Your task to perform on an android device: Open ESPN.com Image 0: 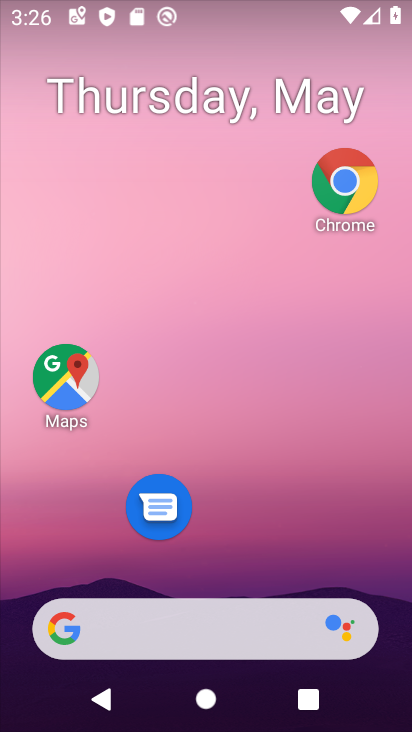
Step 0: click (342, 180)
Your task to perform on an android device: Open ESPN.com Image 1: 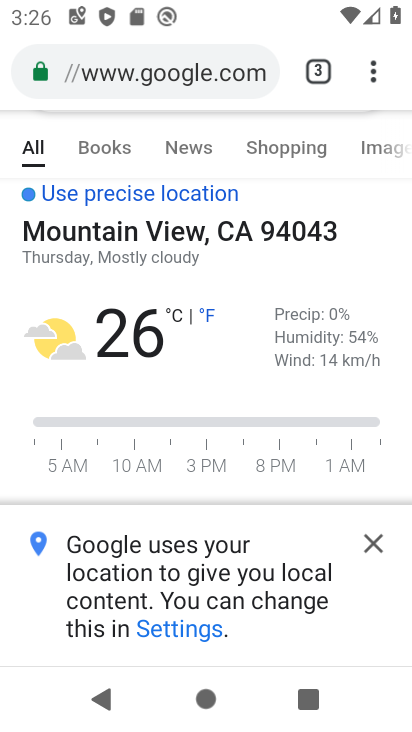
Step 1: click (205, 77)
Your task to perform on an android device: Open ESPN.com Image 2: 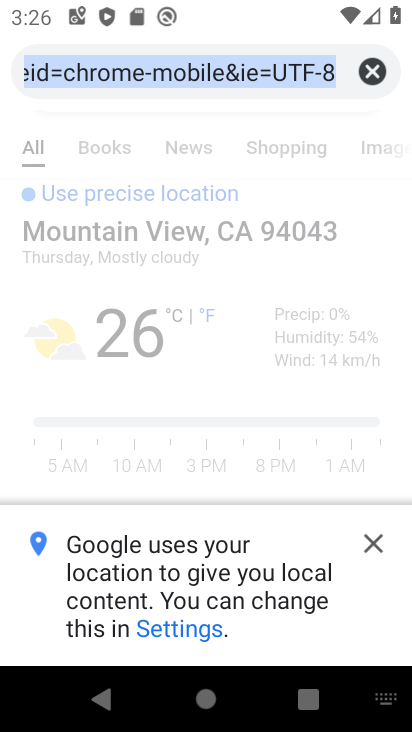
Step 2: click (373, 73)
Your task to perform on an android device: Open ESPN.com Image 3: 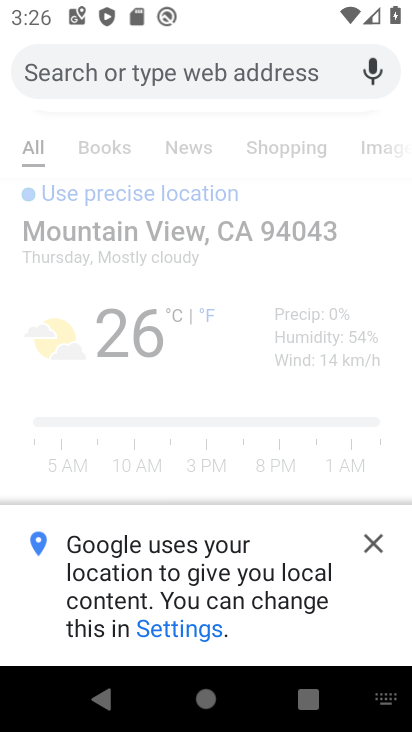
Step 3: click (375, 541)
Your task to perform on an android device: Open ESPN.com Image 4: 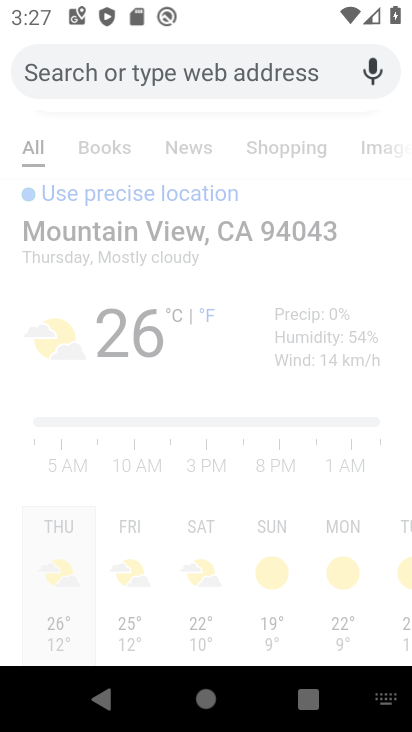
Step 4: click (125, 77)
Your task to perform on an android device: Open ESPN.com Image 5: 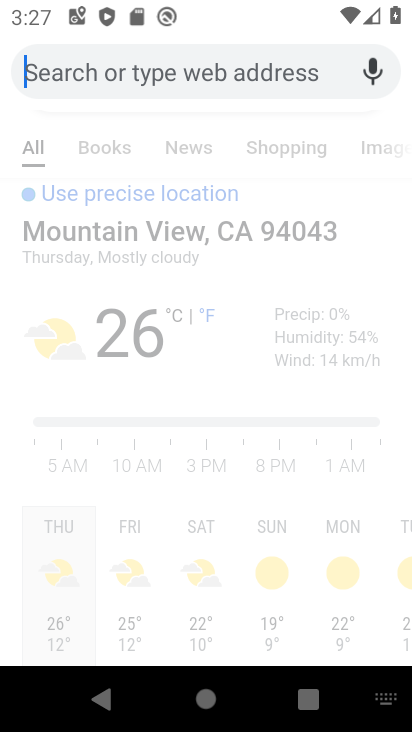
Step 5: type "ESPN.com"
Your task to perform on an android device: Open ESPN.com Image 6: 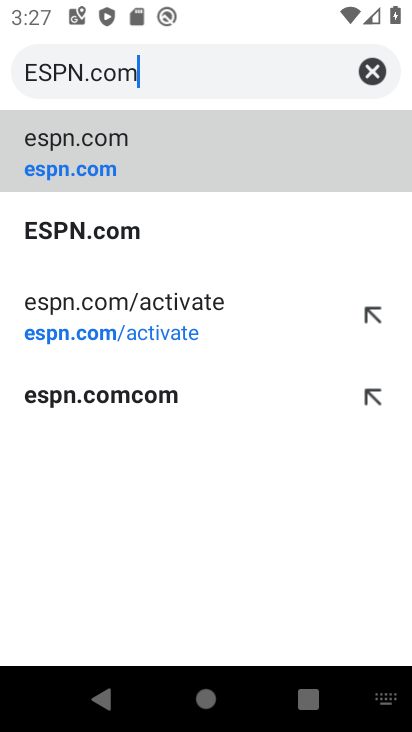
Step 6: click (83, 166)
Your task to perform on an android device: Open ESPN.com Image 7: 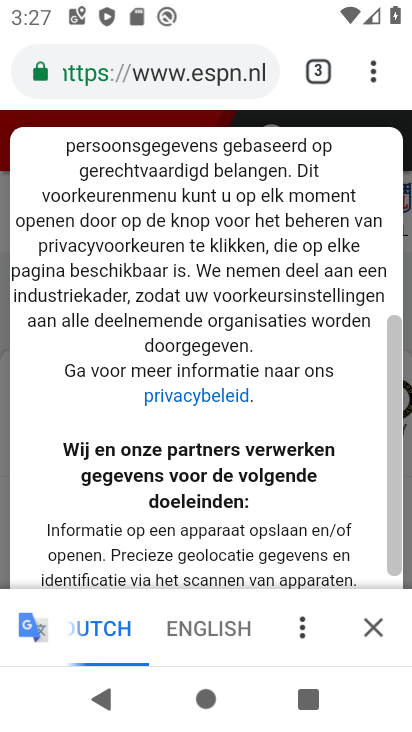
Step 7: task complete